Your task to perform on an android device: Go to Yahoo.com Image 0: 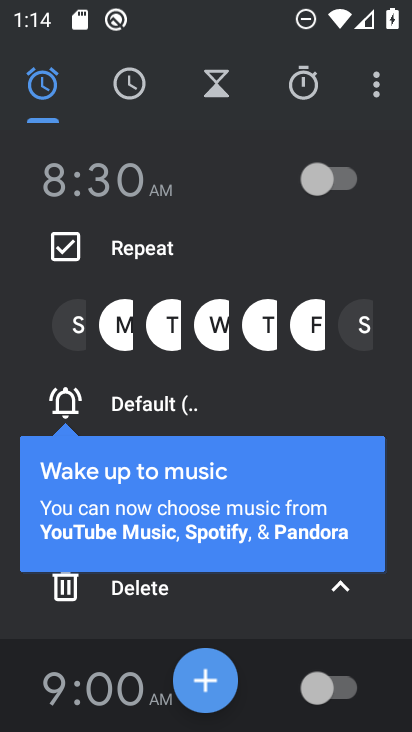
Step 0: press home button
Your task to perform on an android device: Go to Yahoo.com Image 1: 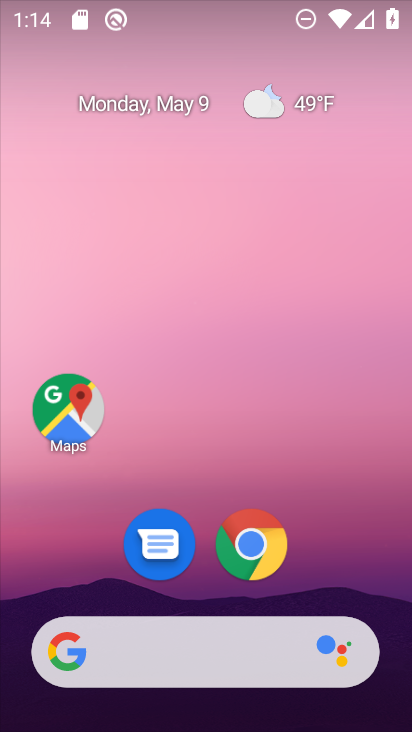
Step 1: click (230, 519)
Your task to perform on an android device: Go to Yahoo.com Image 2: 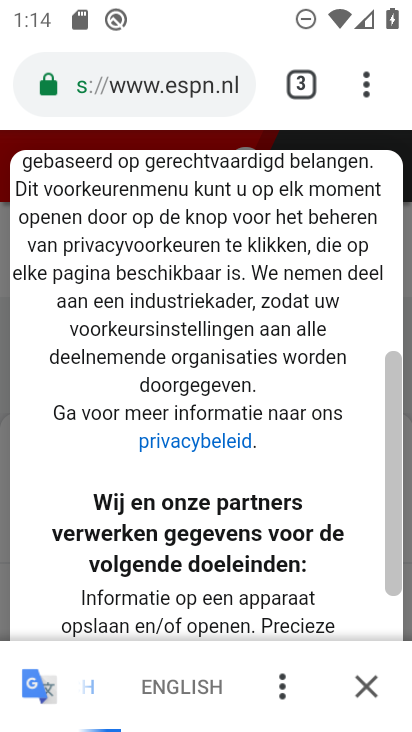
Step 2: click (153, 81)
Your task to perform on an android device: Go to Yahoo.com Image 3: 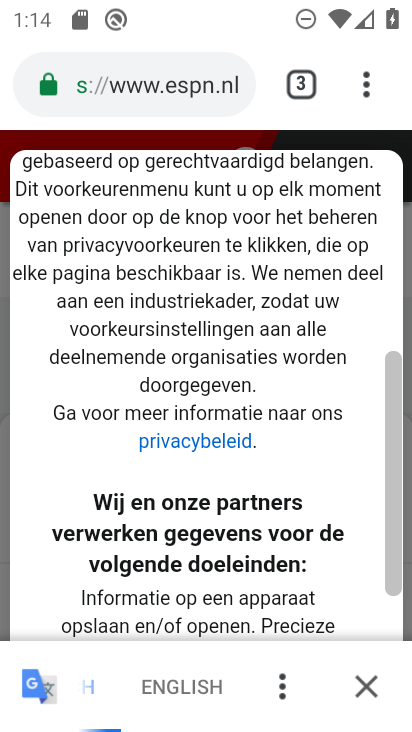
Step 3: click (153, 81)
Your task to perform on an android device: Go to Yahoo.com Image 4: 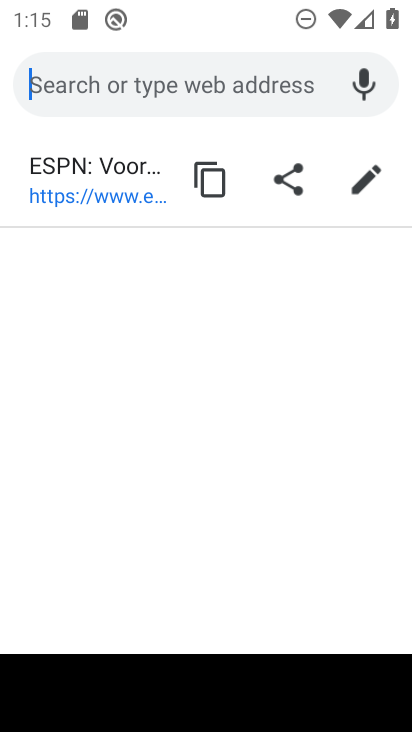
Step 4: type "yahoo.com"
Your task to perform on an android device: Go to Yahoo.com Image 5: 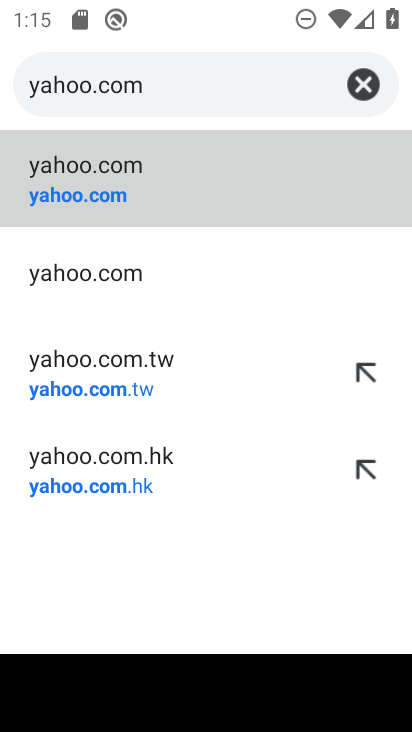
Step 5: click (180, 189)
Your task to perform on an android device: Go to Yahoo.com Image 6: 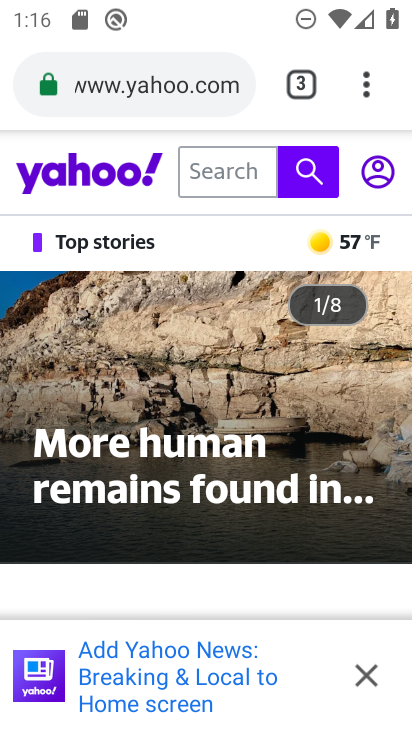
Step 6: task complete